Your task to perform on an android device: Open Amazon Image 0: 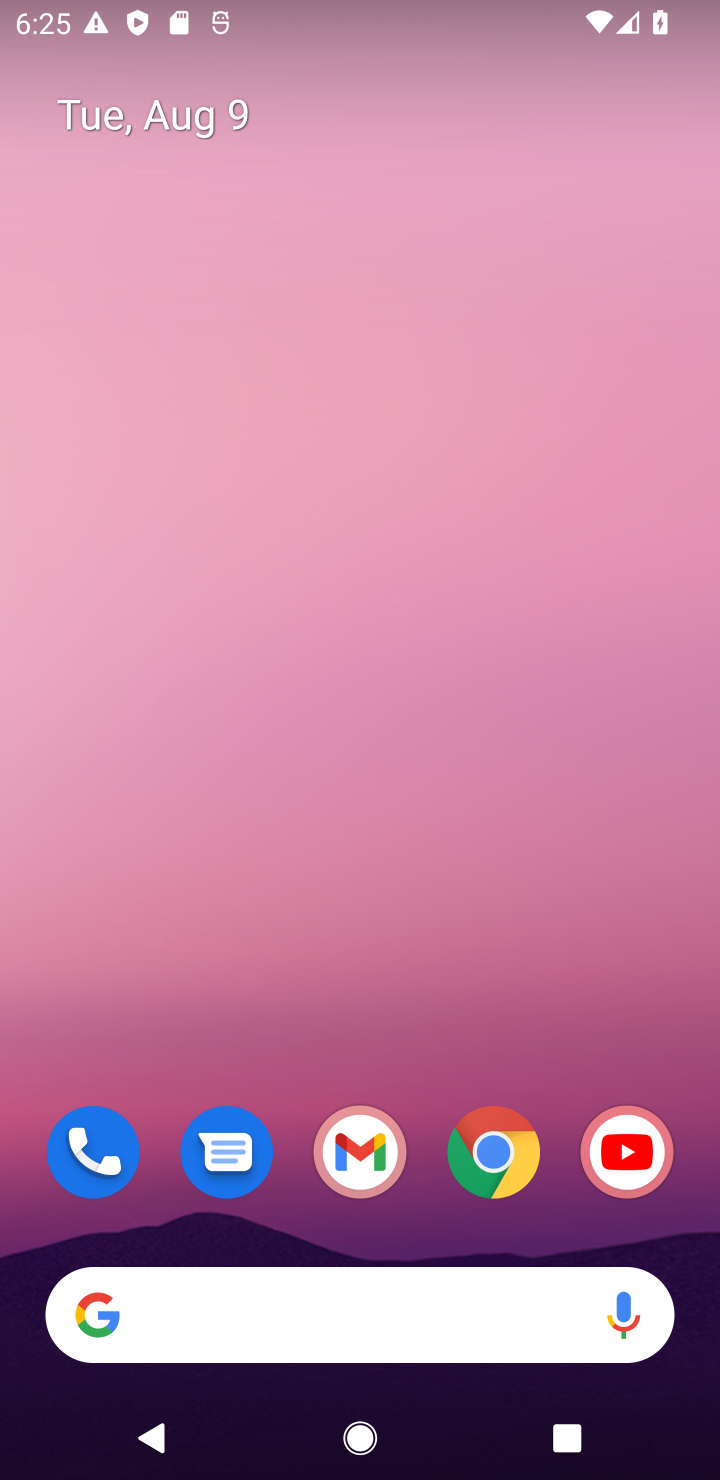
Step 0: click (495, 1152)
Your task to perform on an android device: Open Amazon Image 1: 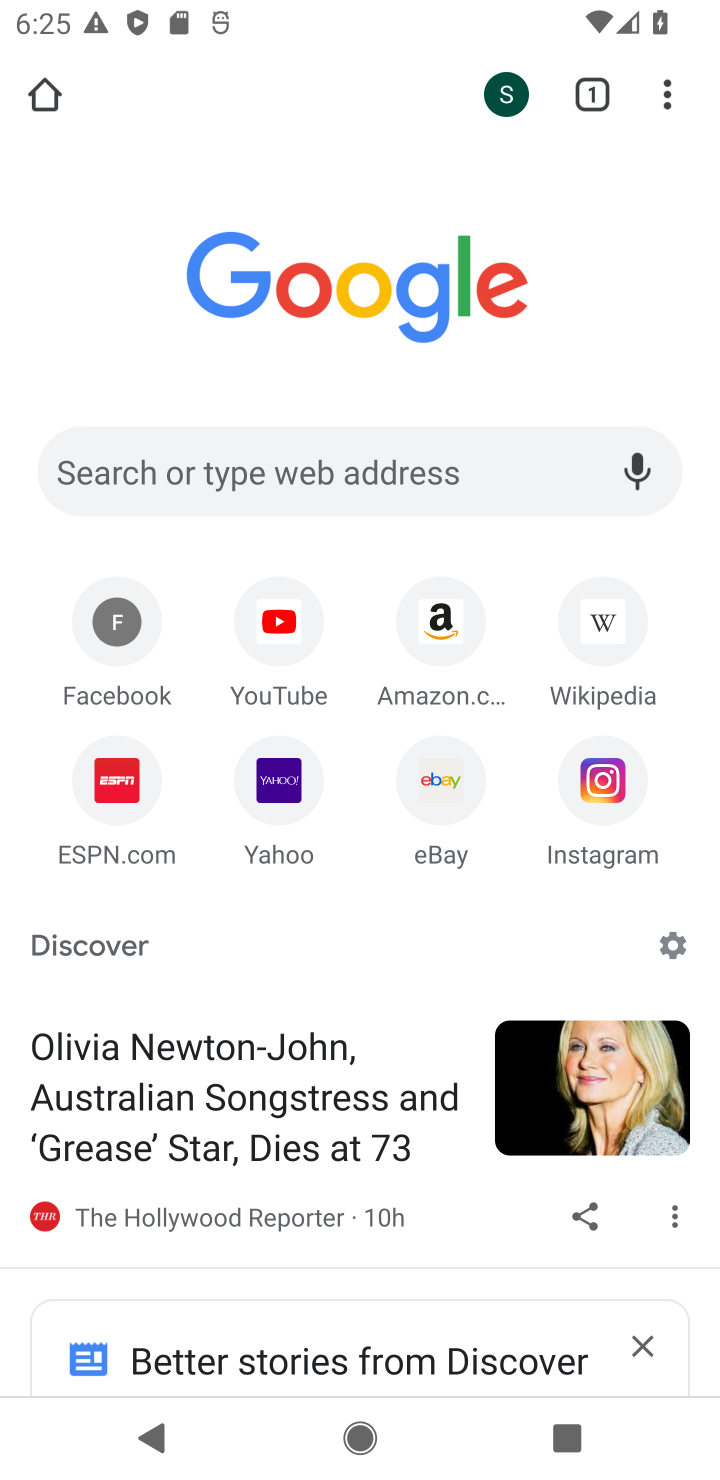
Step 1: click (447, 630)
Your task to perform on an android device: Open Amazon Image 2: 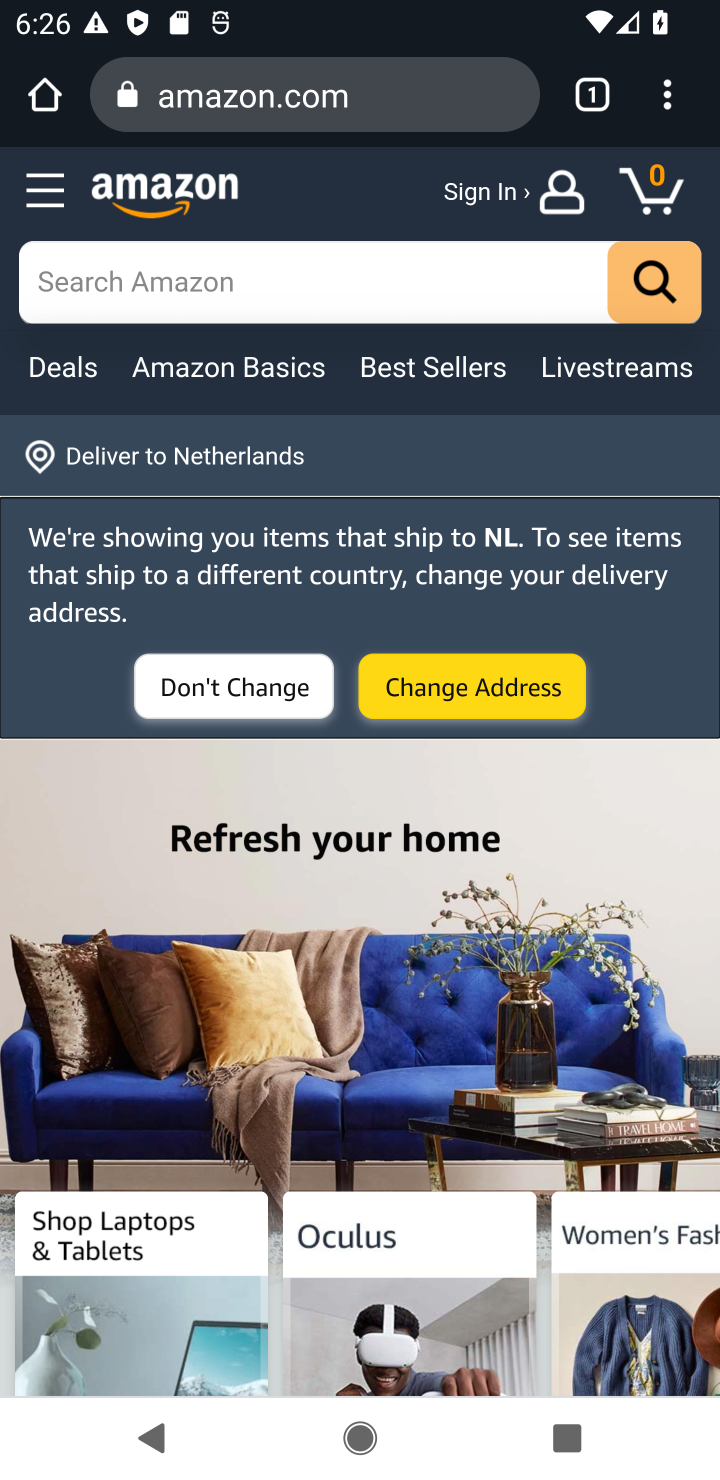
Step 2: task complete